Your task to perform on an android device: turn off sleep mode Image 0: 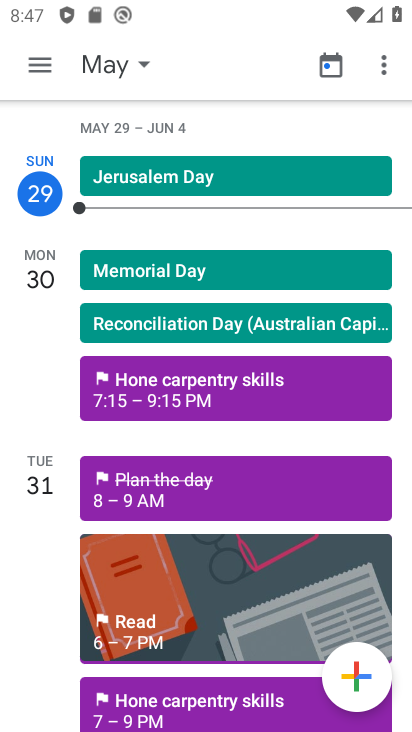
Step 0: press back button
Your task to perform on an android device: turn off sleep mode Image 1: 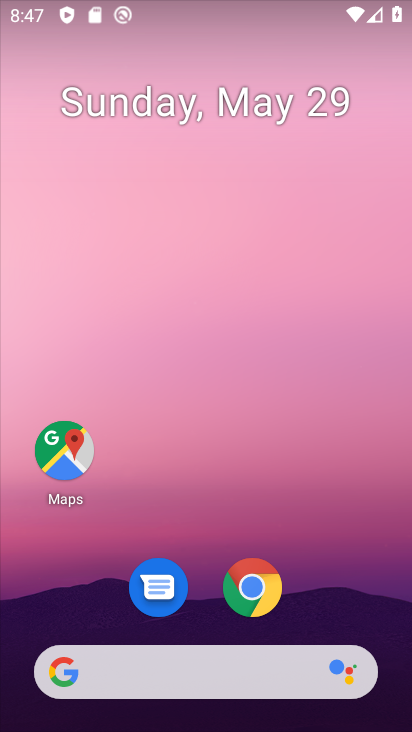
Step 1: drag from (190, 523) to (234, 4)
Your task to perform on an android device: turn off sleep mode Image 2: 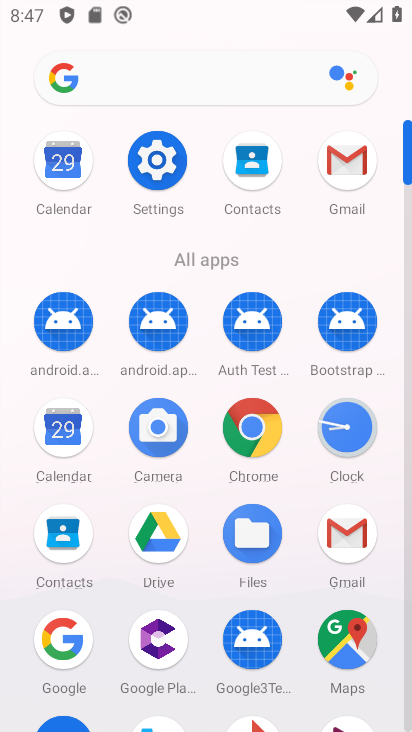
Step 2: click (143, 148)
Your task to perform on an android device: turn off sleep mode Image 3: 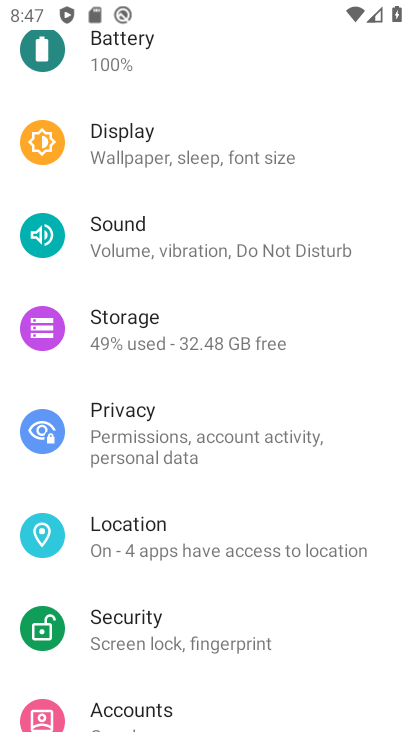
Step 3: drag from (164, 106) to (176, 615)
Your task to perform on an android device: turn off sleep mode Image 4: 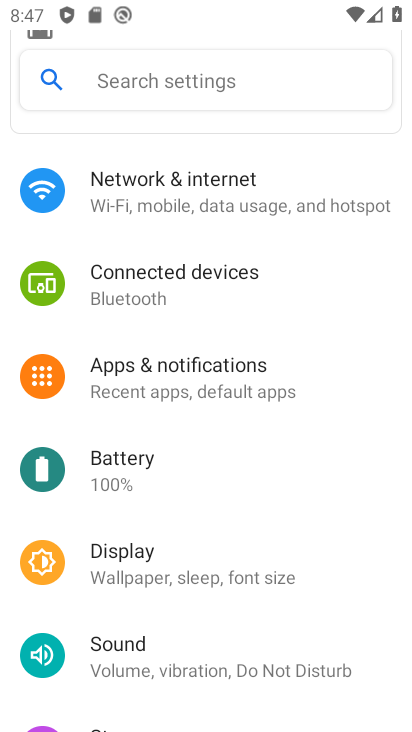
Step 4: click (142, 77)
Your task to perform on an android device: turn off sleep mode Image 5: 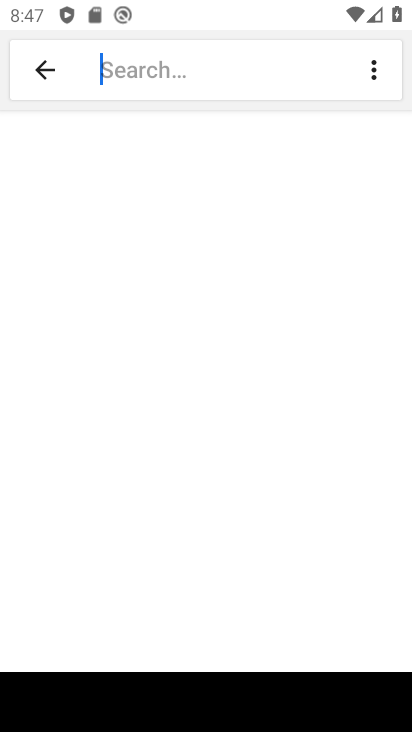
Step 5: type "sleep mode"
Your task to perform on an android device: turn off sleep mode Image 6: 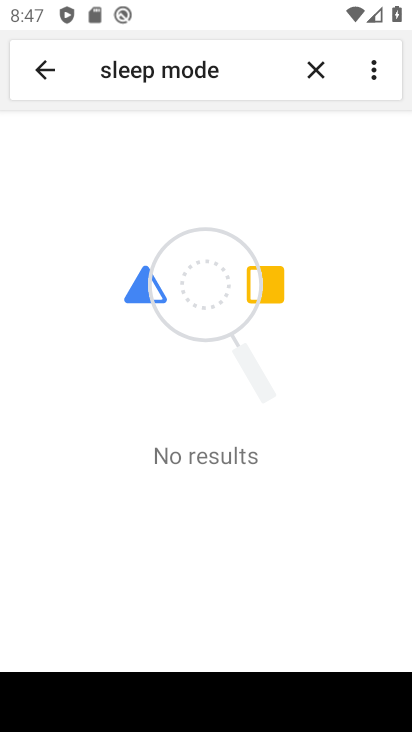
Step 6: task complete